Your task to perform on an android device: allow cookies in the chrome app Image 0: 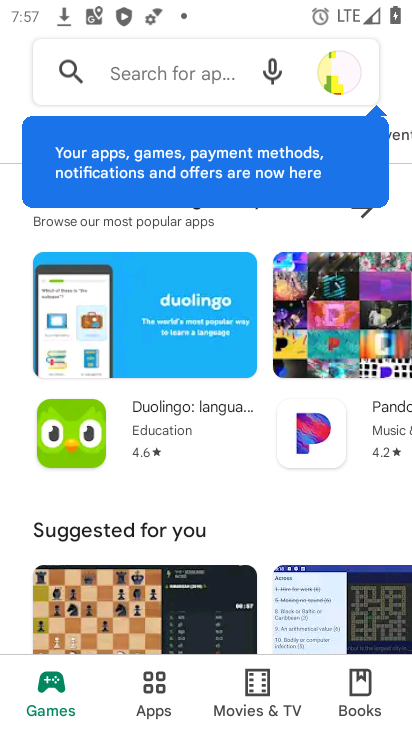
Step 0: press home button
Your task to perform on an android device: allow cookies in the chrome app Image 1: 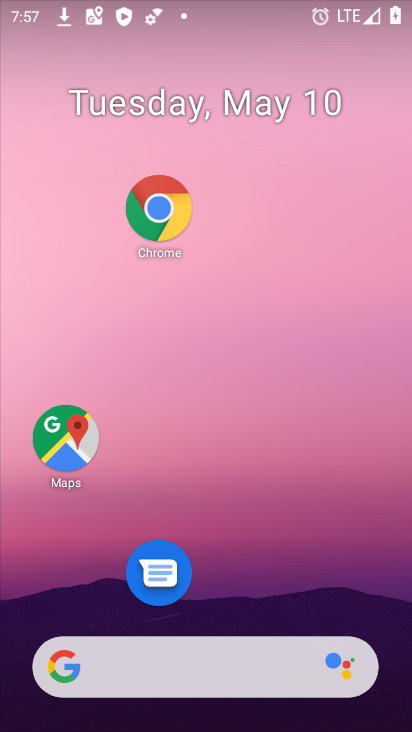
Step 1: drag from (246, 703) to (358, 200)
Your task to perform on an android device: allow cookies in the chrome app Image 2: 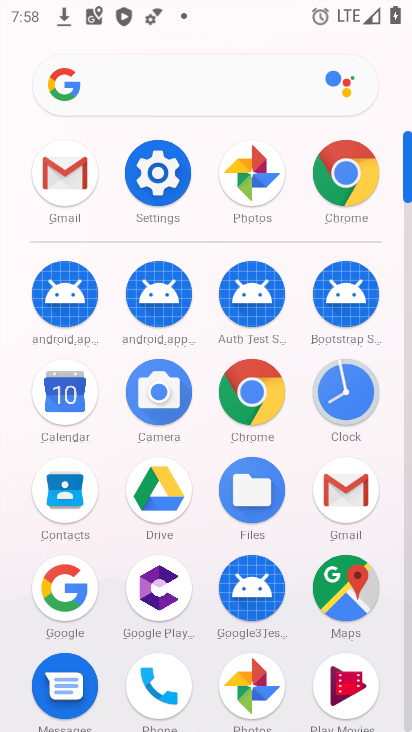
Step 2: click (243, 400)
Your task to perform on an android device: allow cookies in the chrome app Image 3: 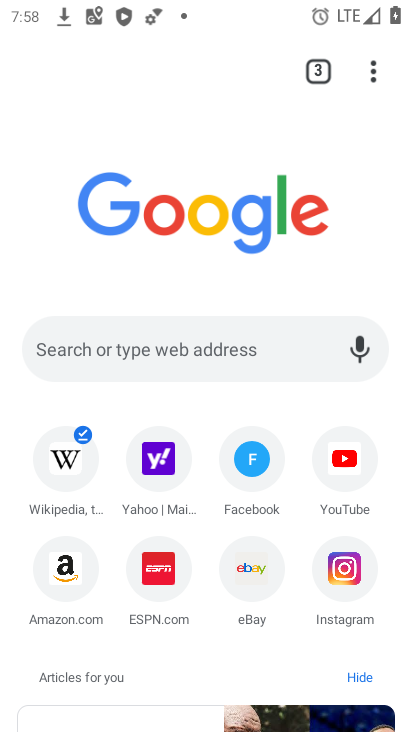
Step 3: click (368, 73)
Your task to perform on an android device: allow cookies in the chrome app Image 4: 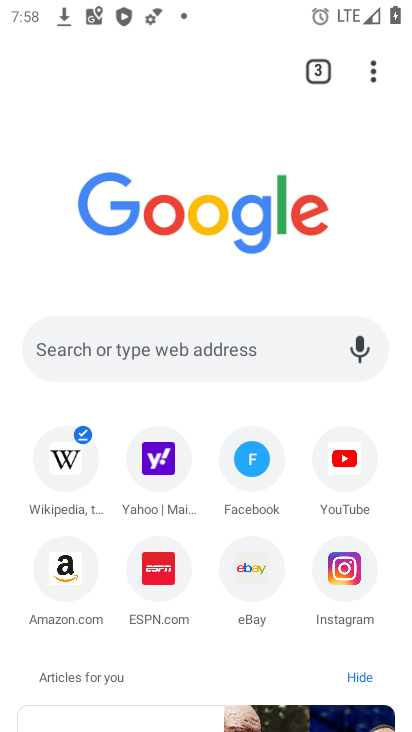
Step 4: click (374, 83)
Your task to perform on an android device: allow cookies in the chrome app Image 5: 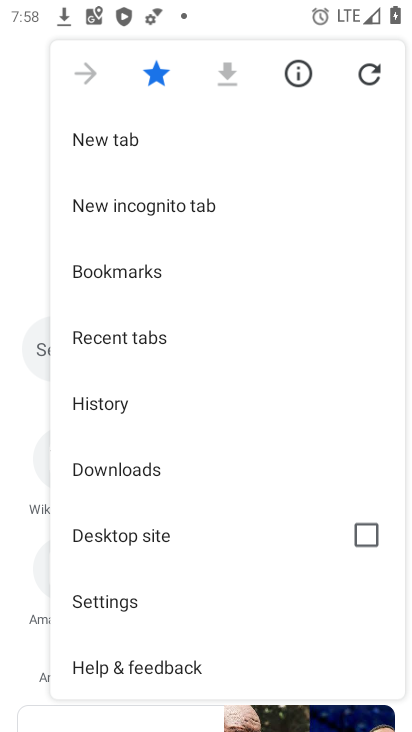
Step 5: click (118, 594)
Your task to perform on an android device: allow cookies in the chrome app Image 6: 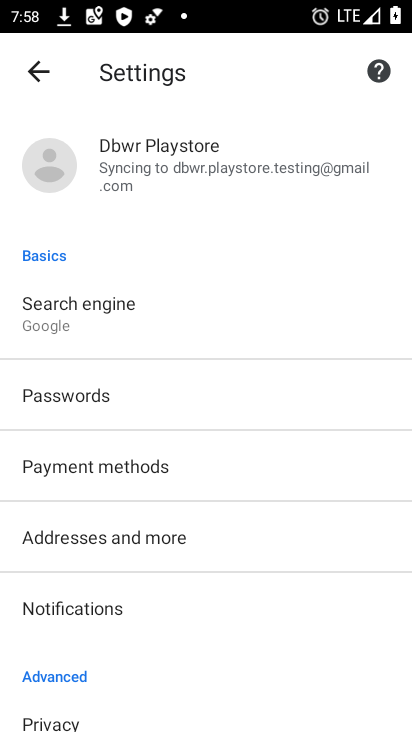
Step 6: drag from (118, 594) to (199, 288)
Your task to perform on an android device: allow cookies in the chrome app Image 7: 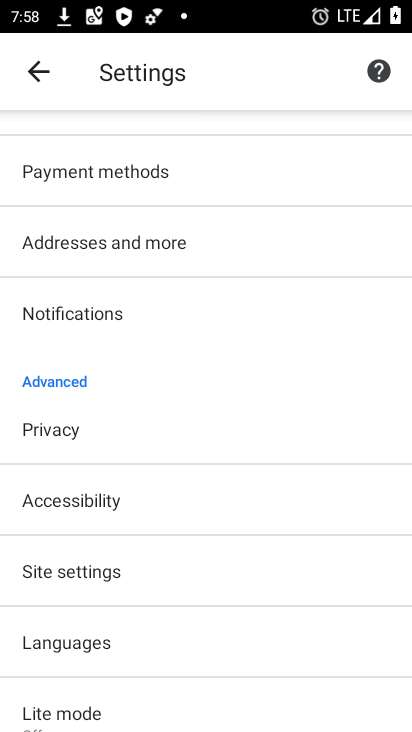
Step 7: click (108, 563)
Your task to perform on an android device: allow cookies in the chrome app Image 8: 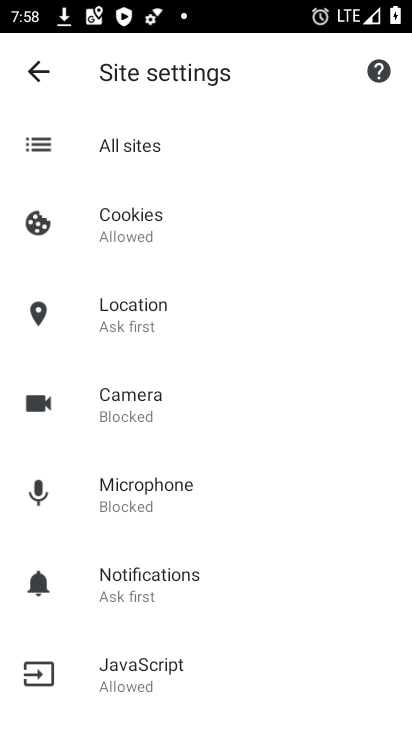
Step 8: click (169, 219)
Your task to perform on an android device: allow cookies in the chrome app Image 9: 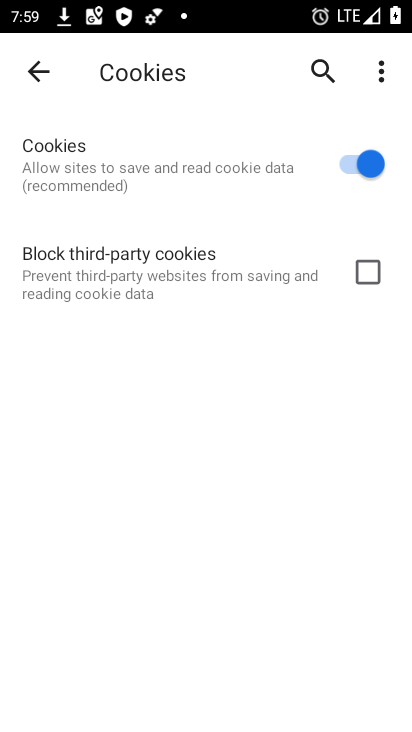
Step 9: click (274, 154)
Your task to perform on an android device: allow cookies in the chrome app Image 10: 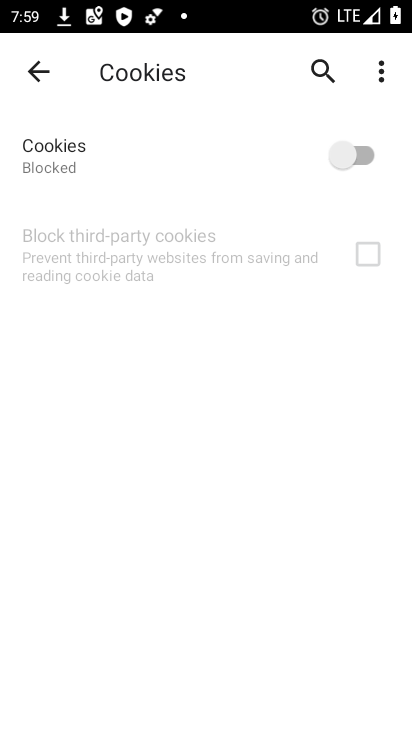
Step 10: click (275, 153)
Your task to perform on an android device: allow cookies in the chrome app Image 11: 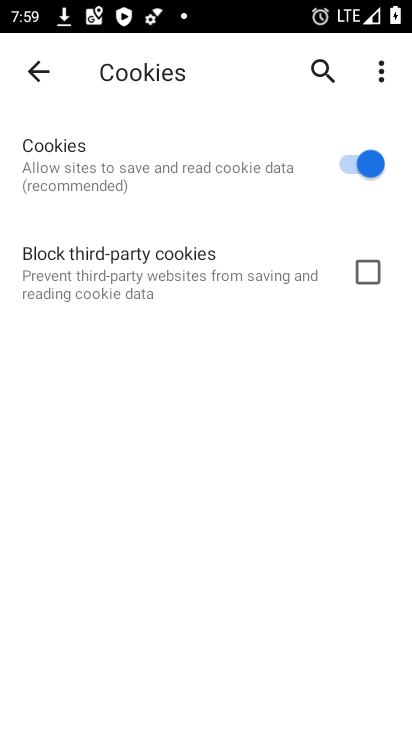
Step 11: task complete